Your task to perform on an android device: open chrome and create a bookmark for the current page Image 0: 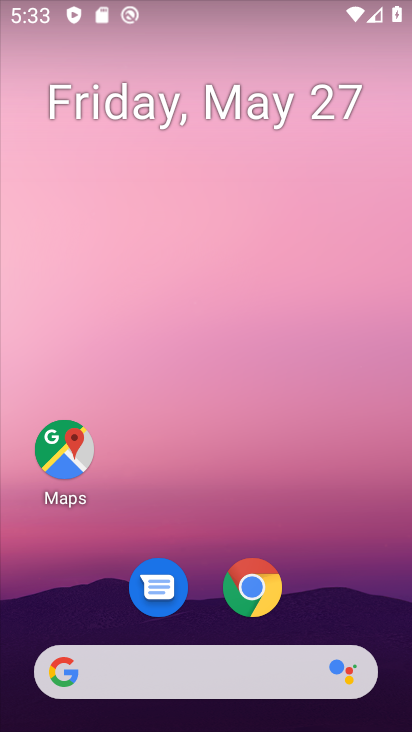
Step 0: click (257, 585)
Your task to perform on an android device: open chrome and create a bookmark for the current page Image 1: 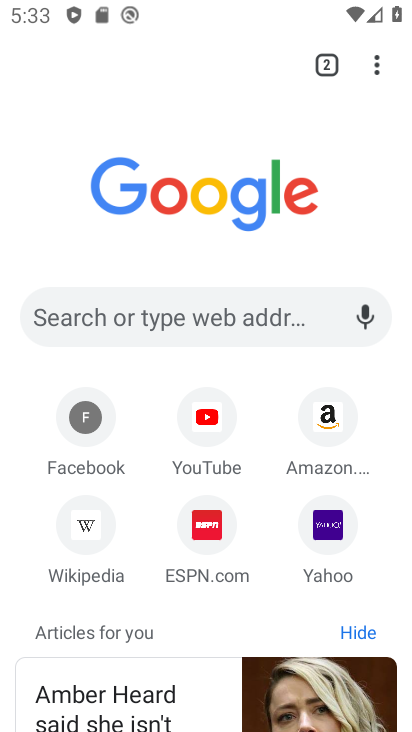
Step 1: click (375, 60)
Your task to perform on an android device: open chrome and create a bookmark for the current page Image 2: 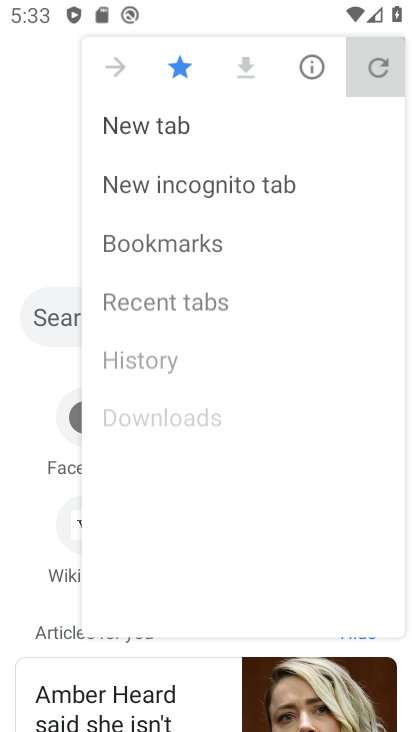
Step 2: click (375, 60)
Your task to perform on an android device: open chrome and create a bookmark for the current page Image 3: 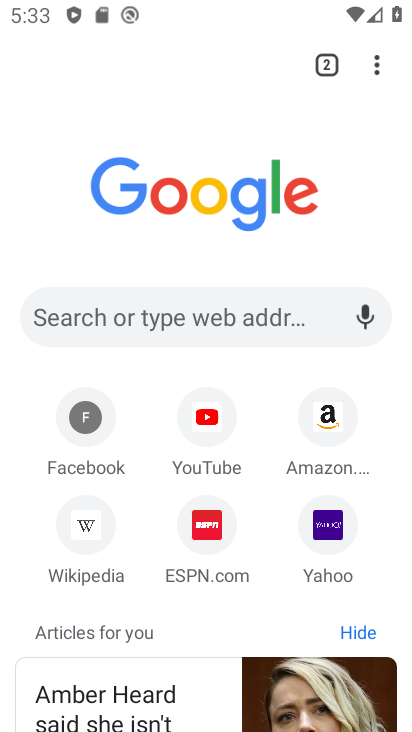
Step 3: task complete